Your task to perform on an android device: Open location settings Image 0: 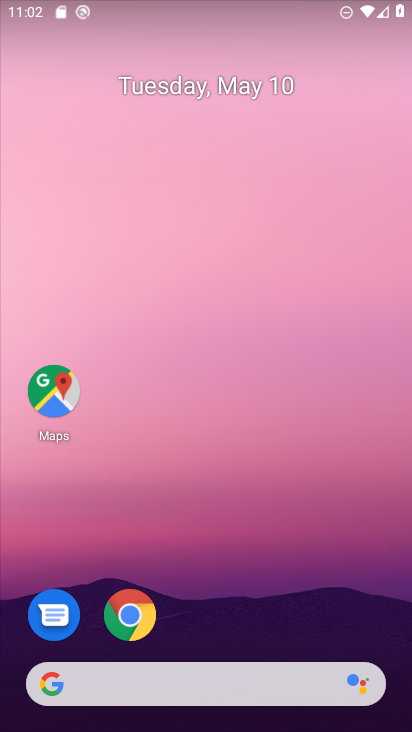
Step 0: drag from (203, 627) to (271, 97)
Your task to perform on an android device: Open location settings Image 1: 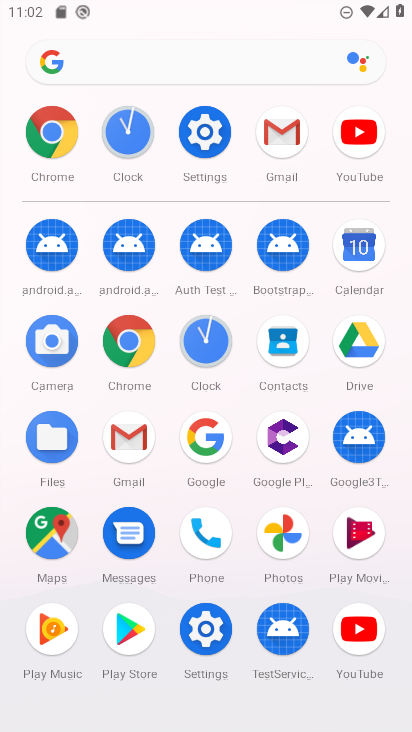
Step 1: click (192, 130)
Your task to perform on an android device: Open location settings Image 2: 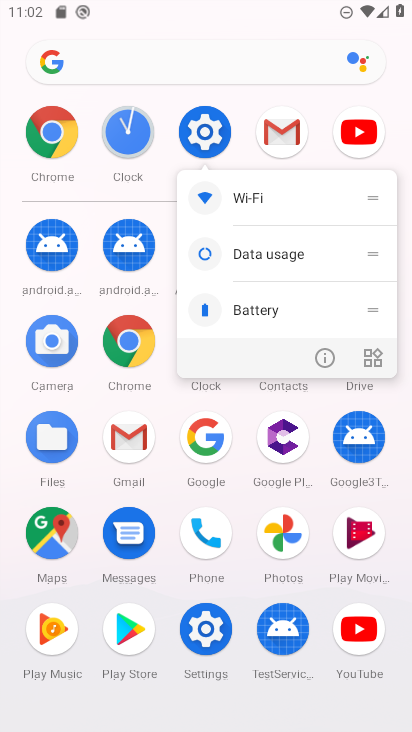
Step 2: click (318, 349)
Your task to perform on an android device: Open location settings Image 3: 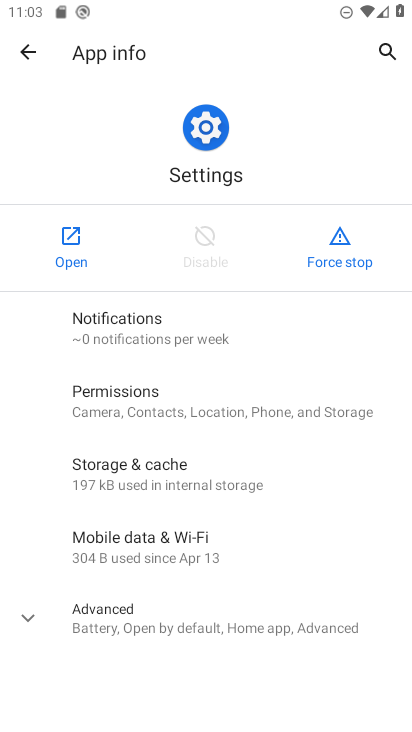
Step 3: click (76, 235)
Your task to perform on an android device: Open location settings Image 4: 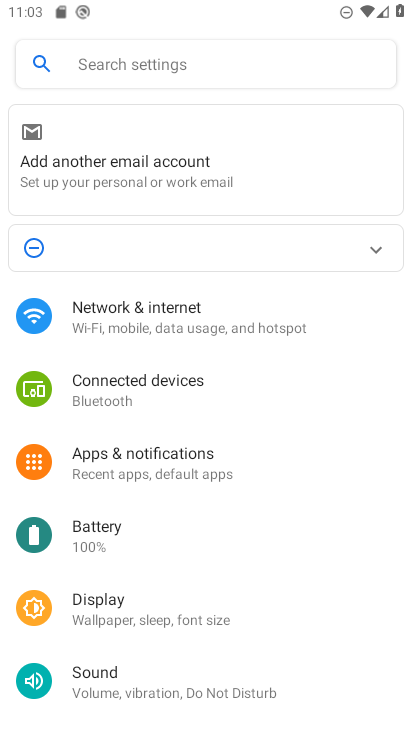
Step 4: drag from (191, 519) to (279, 112)
Your task to perform on an android device: Open location settings Image 5: 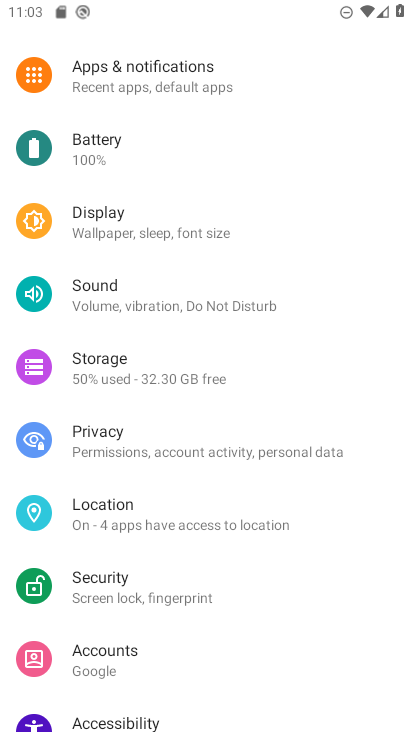
Step 5: click (117, 510)
Your task to perform on an android device: Open location settings Image 6: 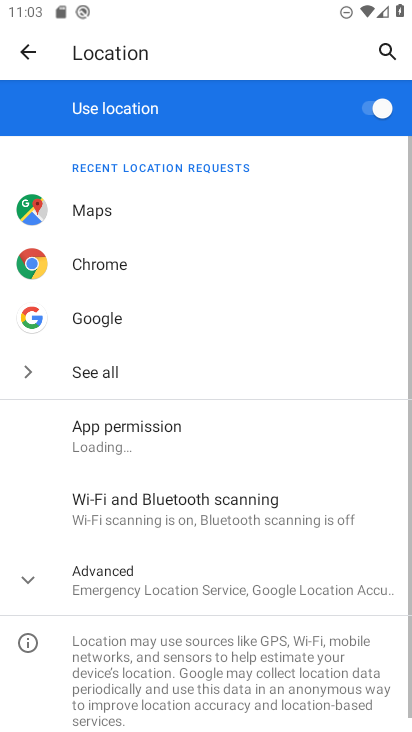
Step 6: task complete